Your task to perform on an android device: clear history in the chrome app Image 0: 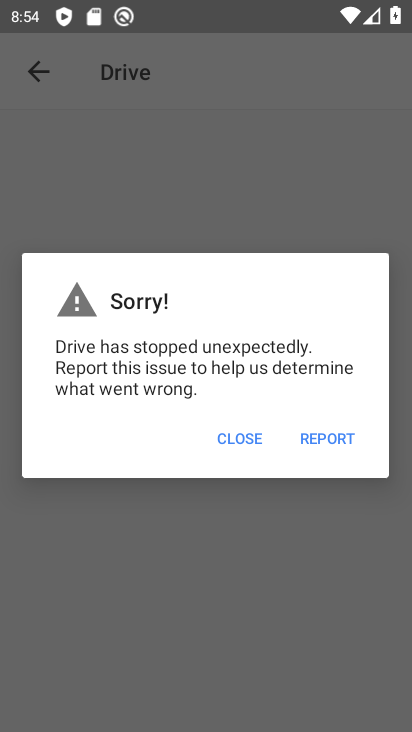
Step 0: press home button
Your task to perform on an android device: clear history in the chrome app Image 1: 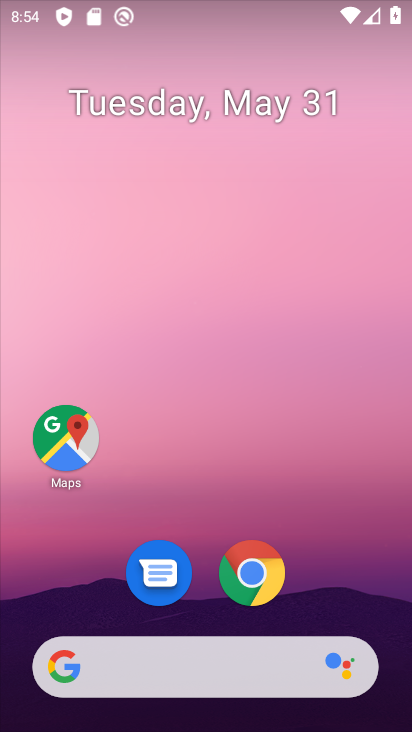
Step 1: drag from (308, 546) to (283, 230)
Your task to perform on an android device: clear history in the chrome app Image 2: 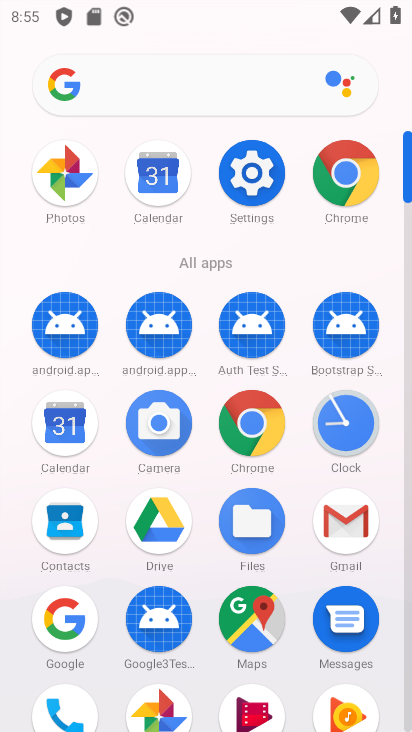
Step 2: click (353, 165)
Your task to perform on an android device: clear history in the chrome app Image 3: 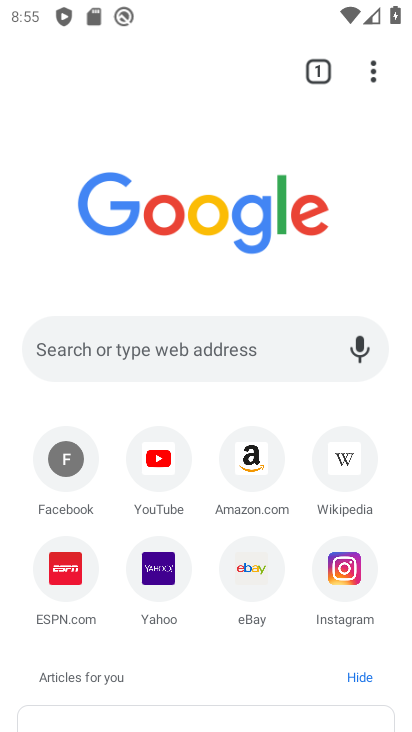
Step 3: drag from (371, 71) to (86, 406)
Your task to perform on an android device: clear history in the chrome app Image 4: 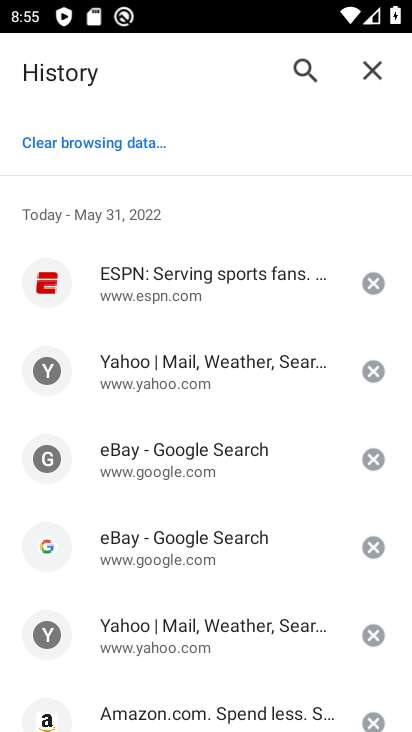
Step 4: click (118, 146)
Your task to perform on an android device: clear history in the chrome app Image 5: 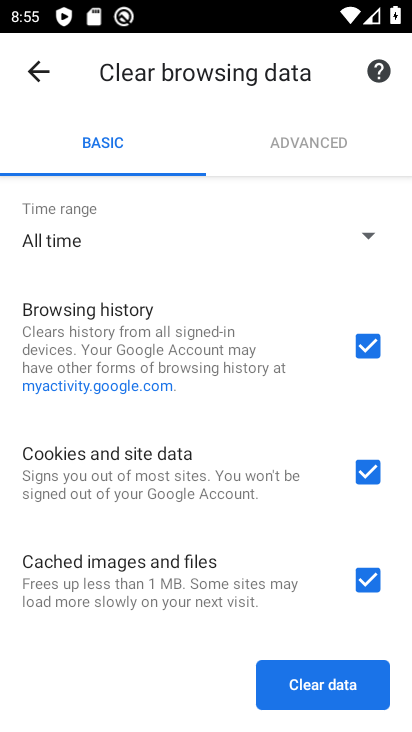
Step 5: click (371, 678)
Your task to perform on an android device: clear history in the chrome app Image 6: 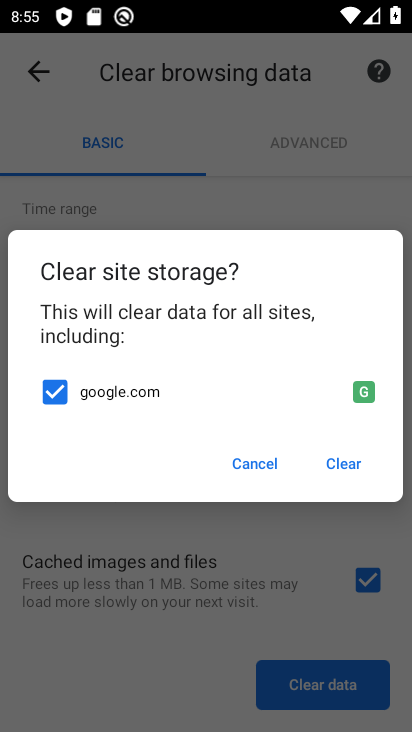
Step 6: click (350, 458)
Your task to perform on an android device: clear history in the chrome app Image 7: 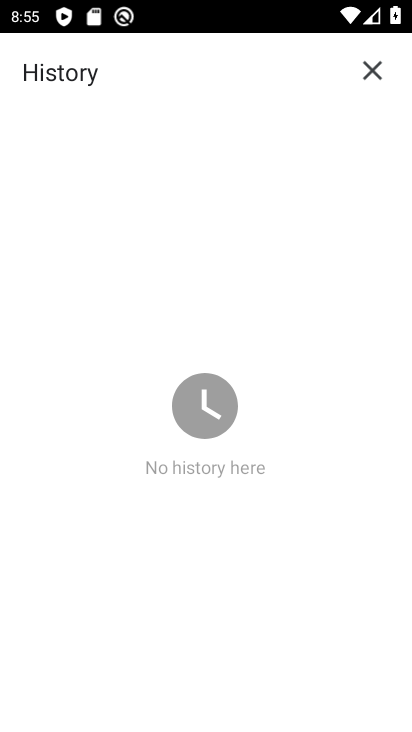
Step 7: task complete